Your task to perform on an android device: Add logitech g pro to the cart on walmart.com Image 0: 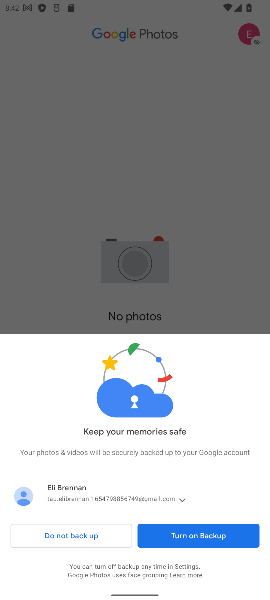
Step 0: press home button
Your task to perform on an android device: Add logitech g pro to the cart on walmart.com Image 1: 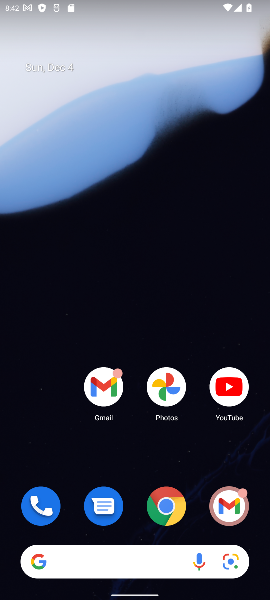
Step 1: click (160, 517)
Your task to perform on an android device: Add logitech g pro to the cart on walmart.com Image 2: 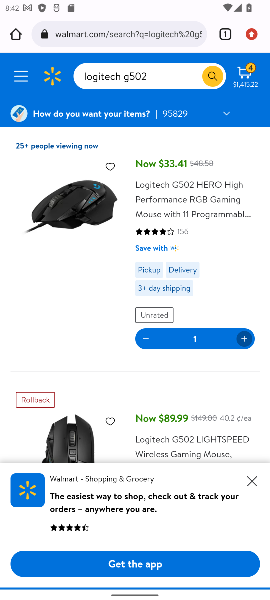
Step 2: click (184, 79)
Your task to perform on an android device: Add logitech g pro to the cart on walmart.com Image 3: 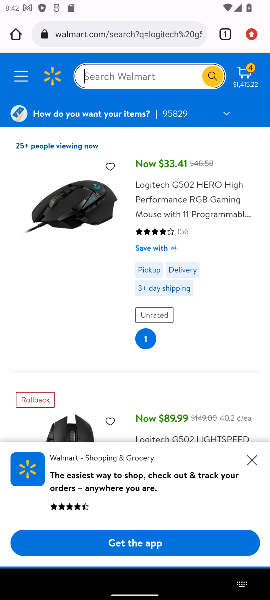
Step 3: type "logitech g pro"
Your task to perform on an android device: Add logitech g pro to the cart on walmart.com Image 4: 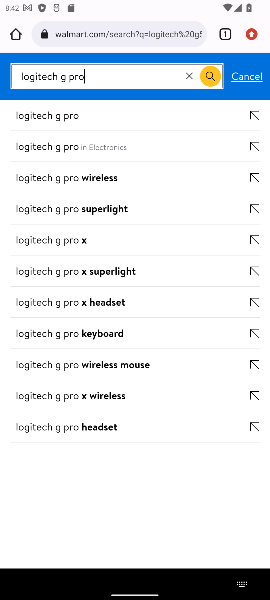
Step 4: click (159, 124)
Your task to perform on an android device: Add logitech g pro to the cart on walmart.com Image 5: 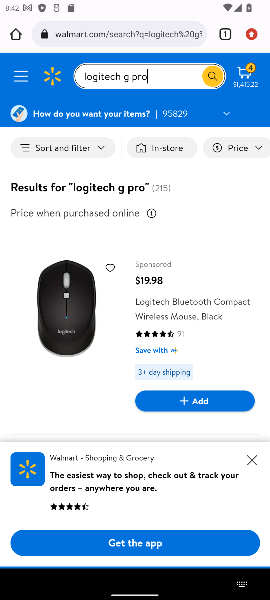
Step 5: drag from (179, 315) to (177, 29)
Your task to perform on an android device: Add logitech g pro to the cart on walmart.com Image 6: 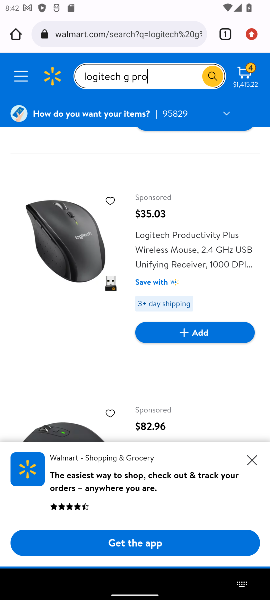
Step 6: drag from (196, 264) to (195, 44)
Your task to perform on an android device: Add logitech g pro to the cart on walmart.com Image 7: 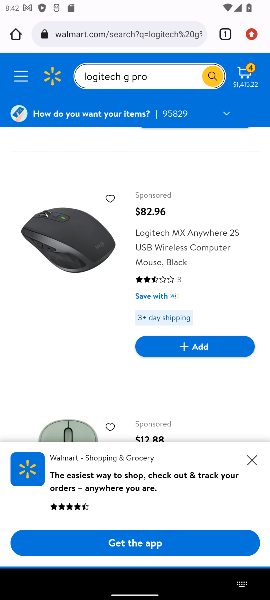
Step 7: drag from (211, 248) to (184, 38)
Your task to perform on an android device: Add logitech g pro to the cart on walmart.com Image 8: 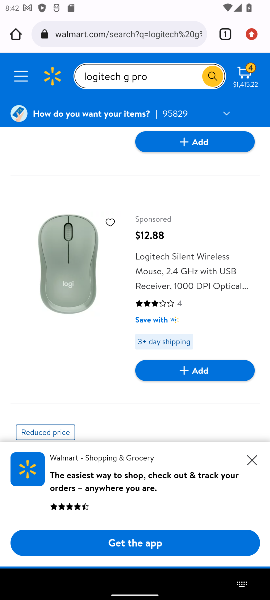
Step 8: drag from (189, 289) to (192, 55)
Your task to perform on an android device: Add logitech g pro to the cart on walmart.com Image 9: 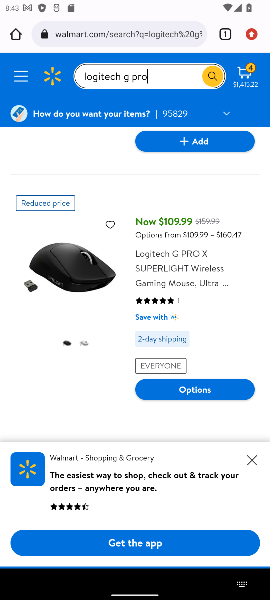
Step 9: drag from (105, 403) to (118, 100)
Your task to perform on an android device: Add logitech g pro to the cart on walmart.com Image 10: 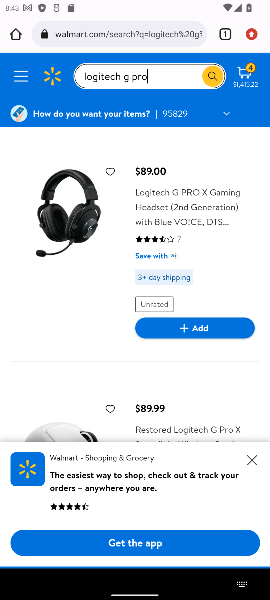
Step 10: click (211, 336)
Your task to perform on an android device: Add logitech g pro to the cart on walmart.com Image 11: 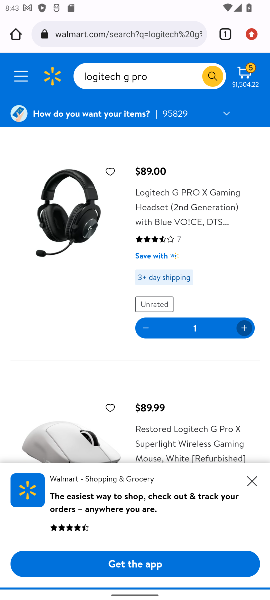
Step 11: task complete